Your task to perform on an android device: Go to accessibility settings Image 0: 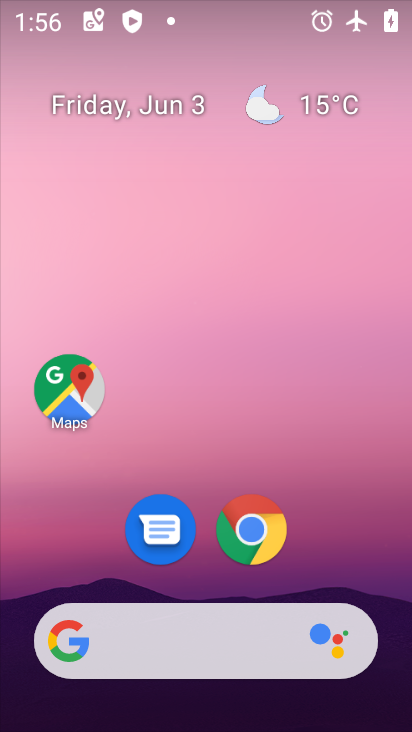
Step 0: drag from (371, 565) to (353, 207)
Your task to perform on an android device: Go to accessibility settings Image 1: 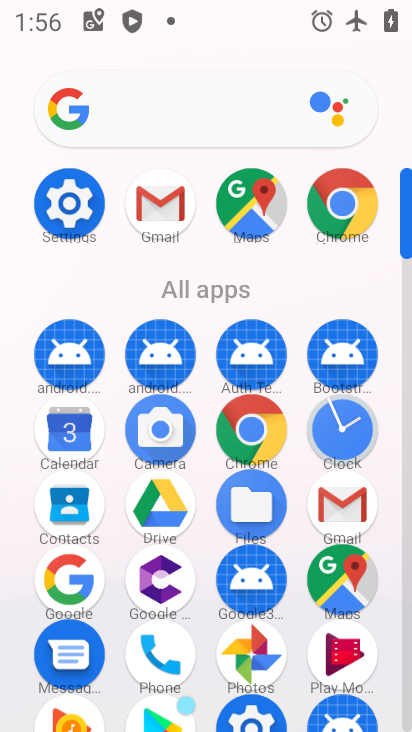
Step 1: drag from (387, 499) to (392, 289)
Your task to perform on an android device: Go to accessibility settings Image 2: 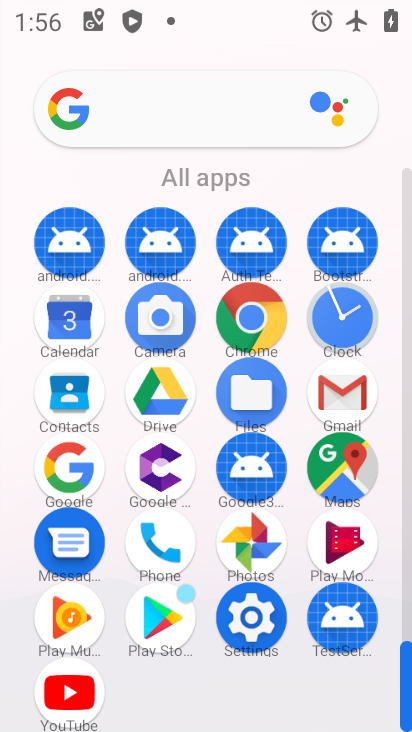
Step 2: click (258, 620)
Your task to perform on an android device: Go to accessibility settings Image 3: 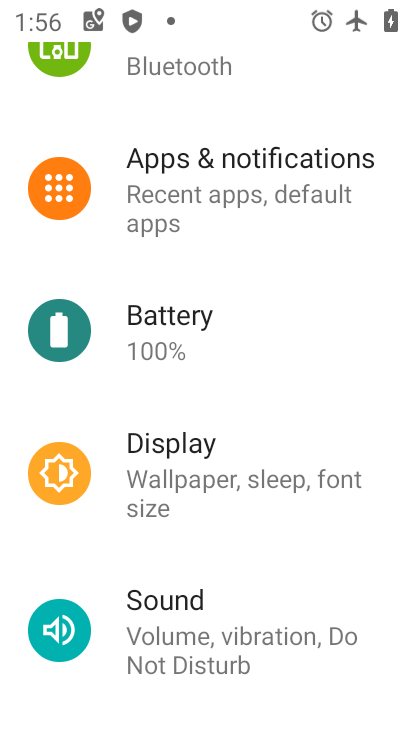
Step 3: drag from (352, 338) to (347, 249)
Your task to perform on an android device: Go to accessibility settings Image 4: 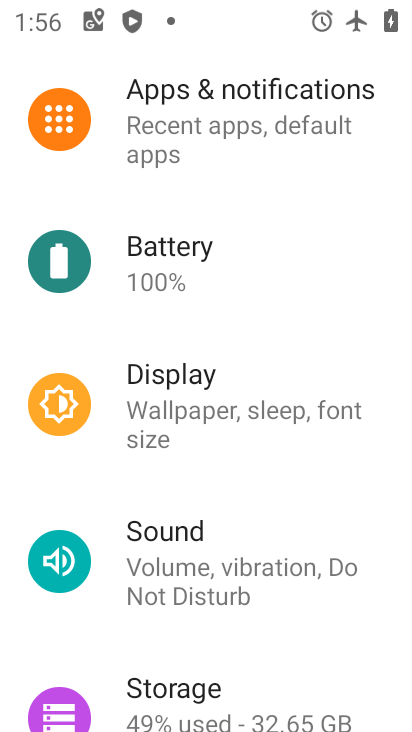
Step 4: drag from (345, 349) to (347, 232)
Your task to perform on an android device: Go to accessibility settings Image 5: 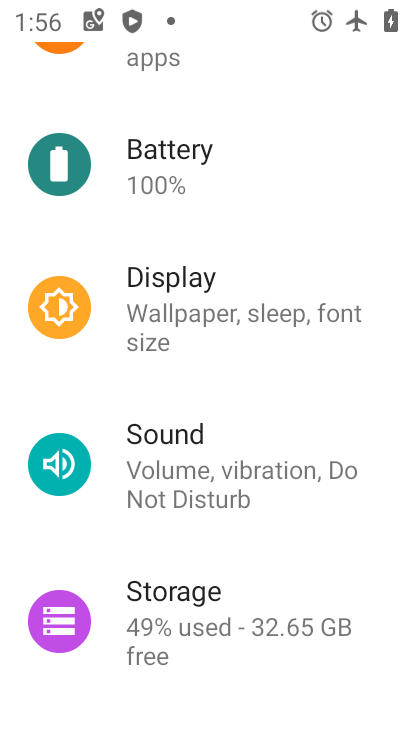
Step 5: drag from (349, 397) to (346, 276)
Your task to perform on an android device: Go to accessibility settings Image 6: 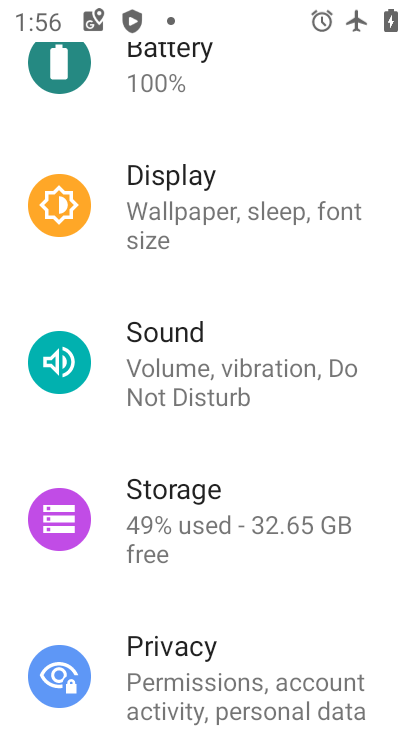
Step 6: drag from (348, 394) to (349, 341)
Your task to perform on an android device: Go to accessibility settings Image 7: 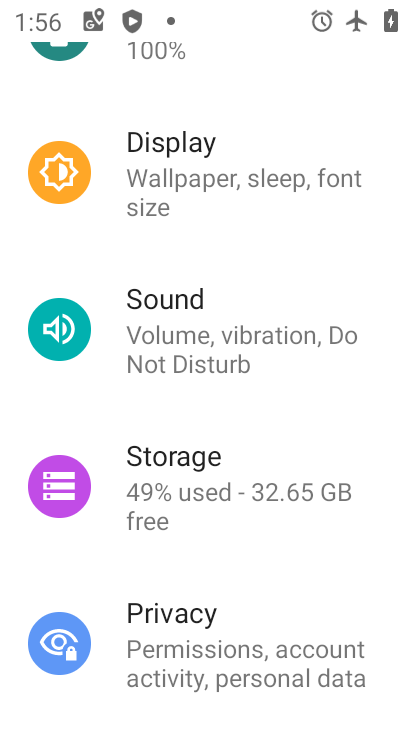
Step 7: drag from (347, 427) to (346, 318)
Your task to perform on an android device: Go to accessibility settings Image 8: 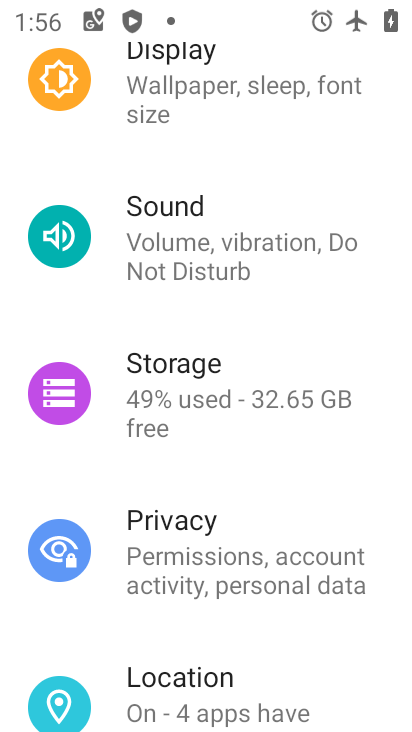
Step 8: drag from (360, 462) to (357, 353)
Your task to perform on an android device: Go to accessibility settings Image 9: 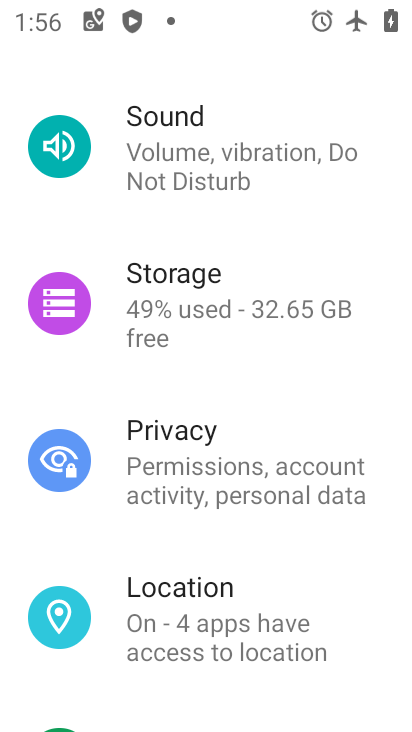
Step 9: drag from (358, 433) to (356, 336)
Your task to perform on an android device: Go to accessibility settings Image 10: 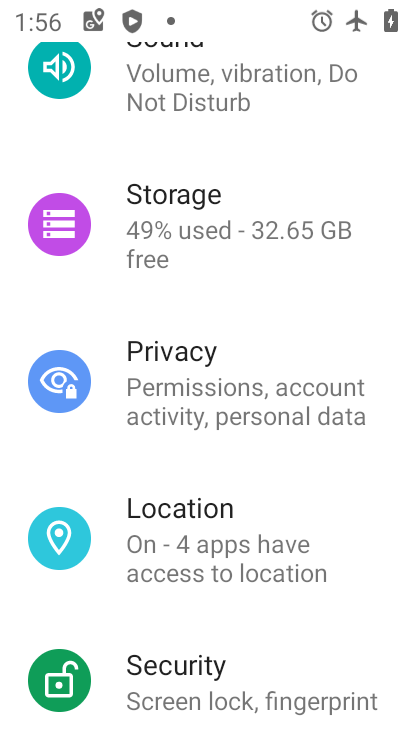
Step 10: drag from (375, 476) to (372, 359)
Your task to perform on an android device: Go to accessibility settings Image 11: 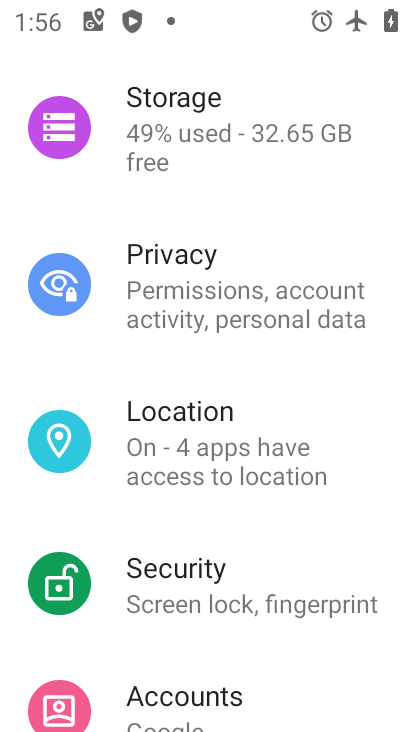
Step 11: drag from (349, 496) to (356, 389)
Your task to perform on an android device: Go to accessibility settings Image 12: 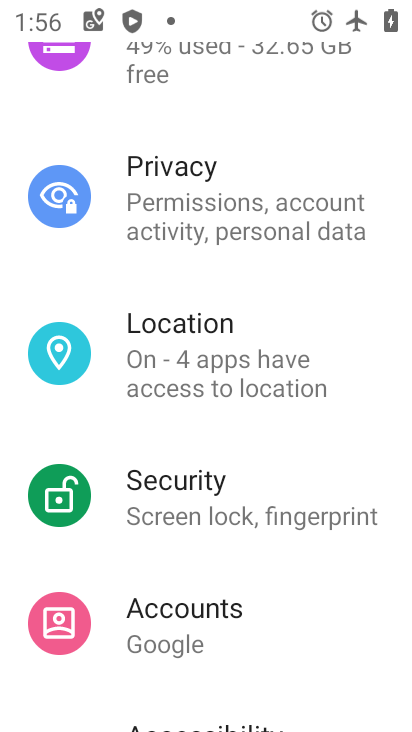
Step 12: drag from (354, 482) to (360, 384)
Your task to perform on an android device: Go to accessibility settings Image 13: 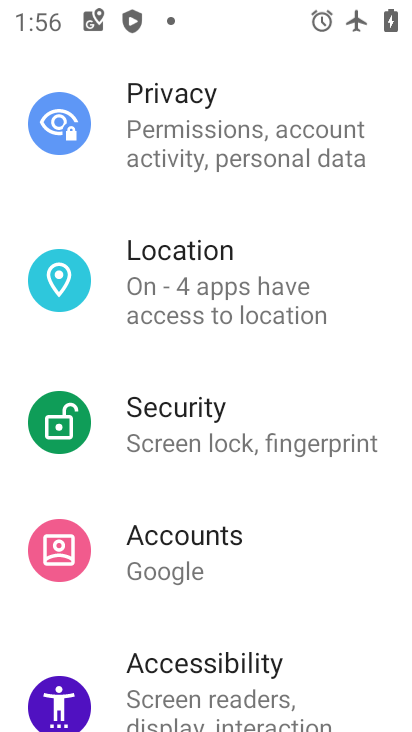
Step 13: drag from (361, 512) to (359, 388)
Your task to perform on an android device: Go to accessibility settings Image 14: 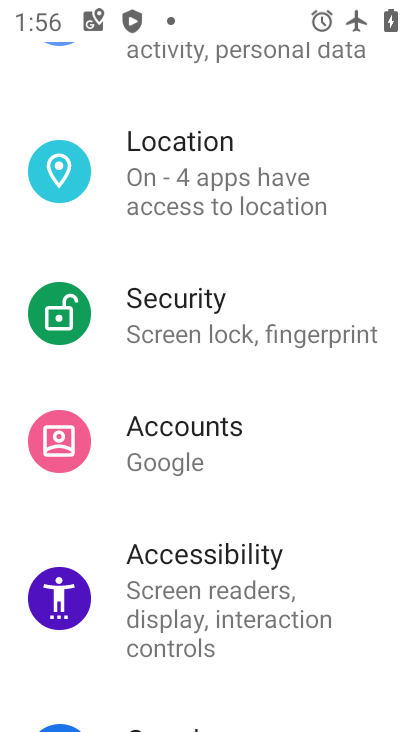
Step 14: drag from (356, 450) to (357, 344)
Your task to perform on an android device: Go to accessibility settings Image 15: 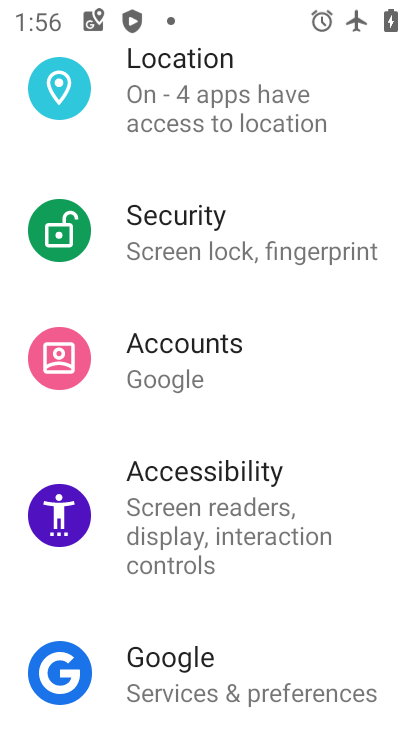
Step 15: drag from (349, 494) to (347, 350)
Your task to perform on an android device: Go to accessibility settings Image 16: 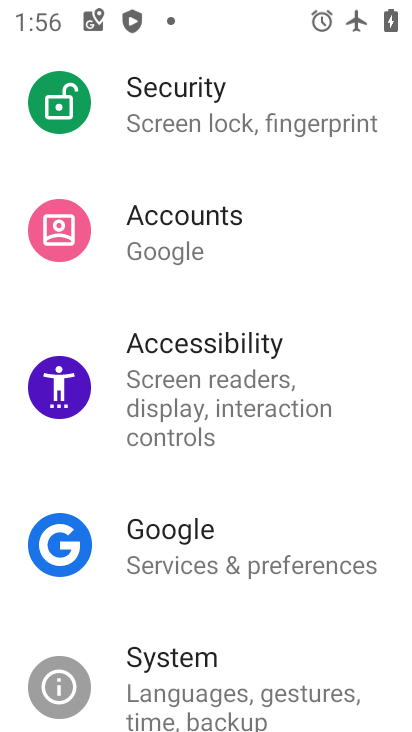
Step 16: drag from (350, 465) to (355, 348)
Your task to perform on an android device: Go to accessibility settings Image 17: 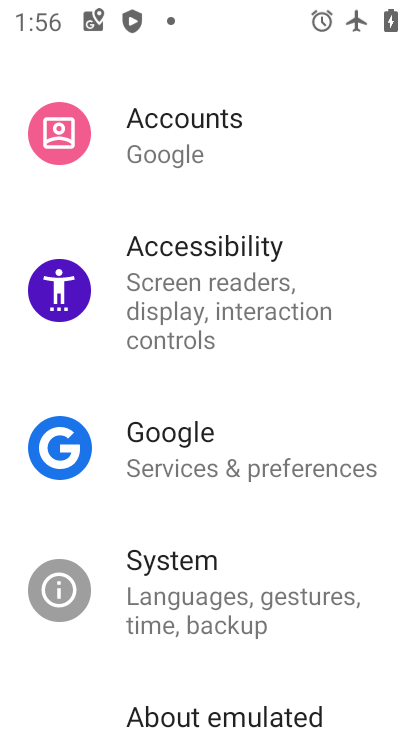
Step 17: click (239, 309)
Your task to perform on an android device: Go to accessibility settings Image 18: 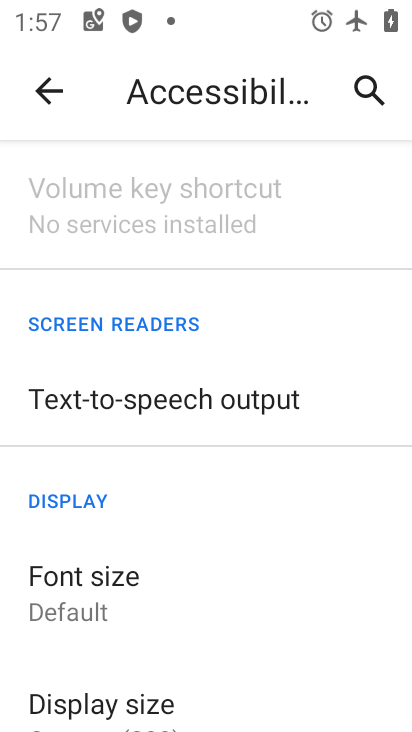
Step 18: task complete